Your task to perform on an android device: Turn off the flashlight Image 0: 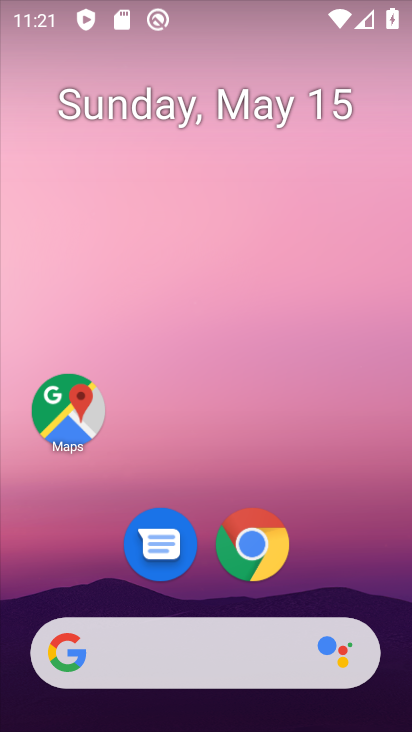
Step 0: drag from (256, 8) to (292, 386)
Your task to perform on an android device: Turn off the flashlight Image 1: 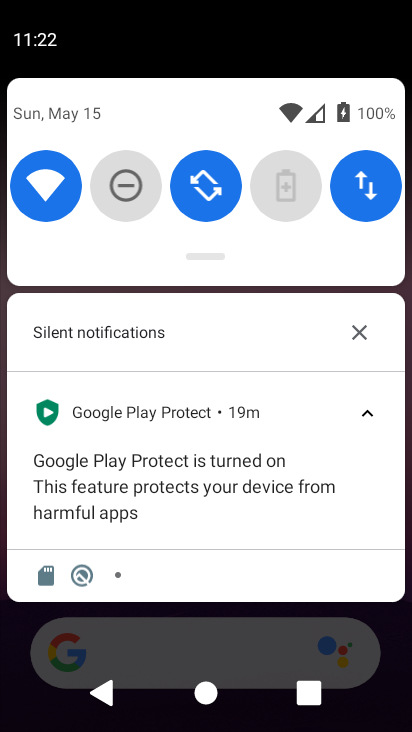
Step 1: drag from (257, 236) to (310, 684)
Your task to perform on an android device: Turn off the flashlight Image 2: 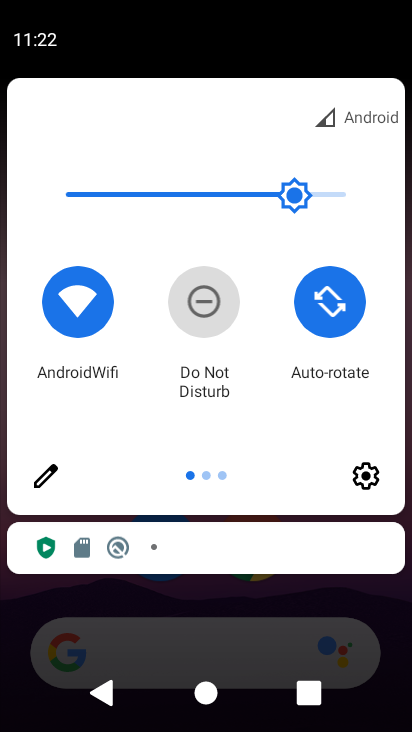
Step 2: drag from (387, 347) to (18, 335)
Your task to perform on an android device: Turn off the flashlight Image 3: 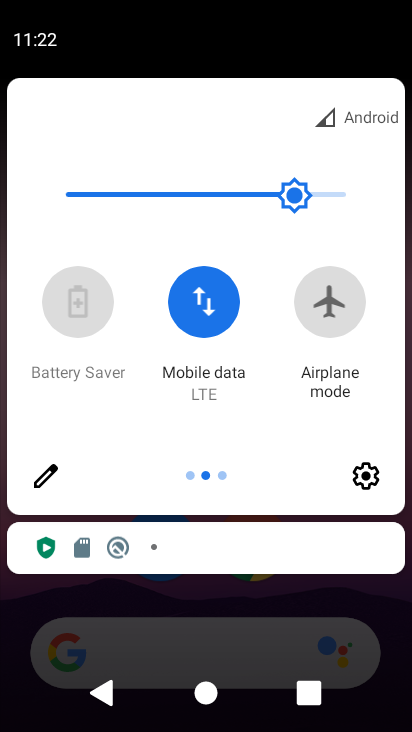
Step 3: drag from (393, 358) to (26, 357)
Your task to perform on an android device: Turn off the flashlight Image 4: 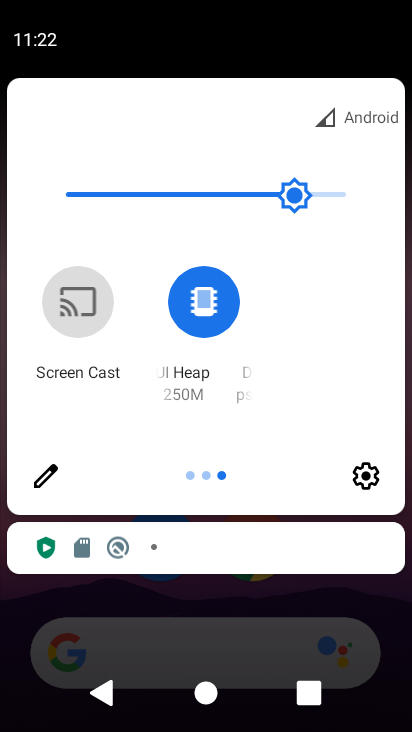
Step 4: click (42, 482)
Your task to perform on an android device: Turn off the flashlight Image 5: 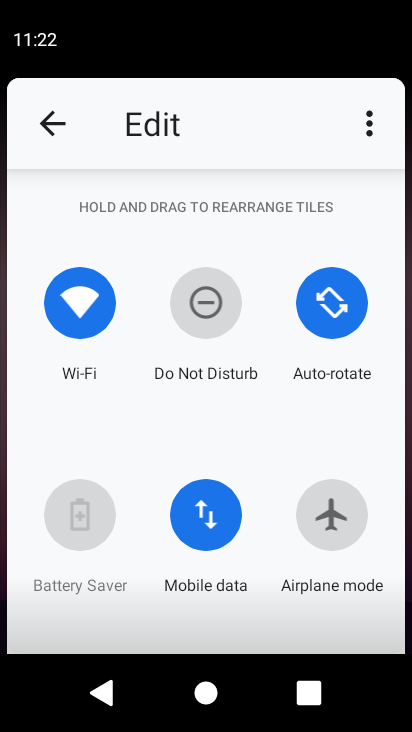
Step 5: task complete